Your task to perform on an android device: turn off notifications in google photos Image 0: 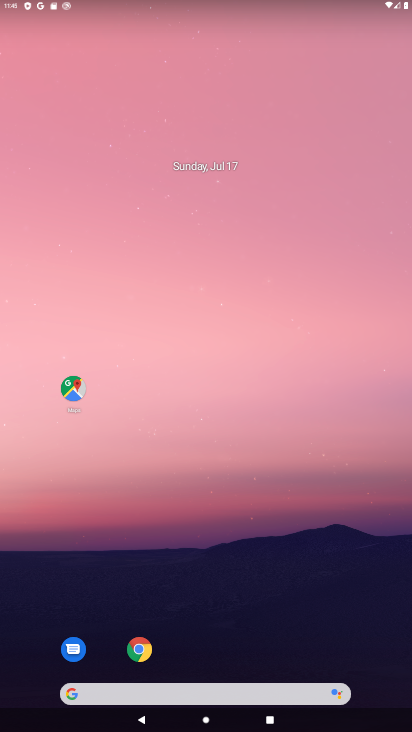
Step 0: drag from (200, 660) to (262, 88)
Your task to perform on an android device: turn off notifications in google photos Image 1: 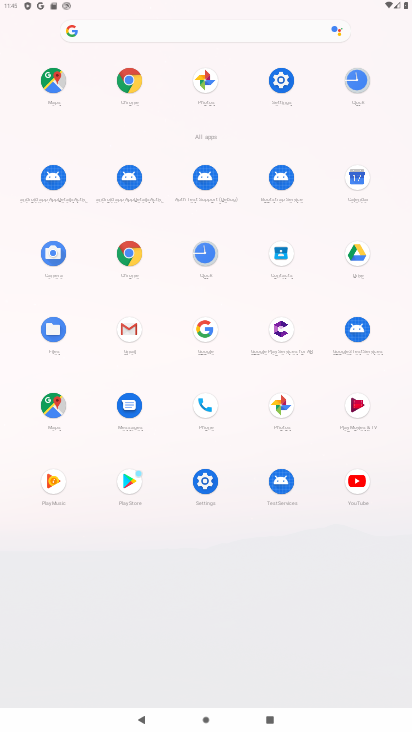
Step 1: click (201, 87)
Your task to perform on an android device: turn off notifications in google photos Image 2: 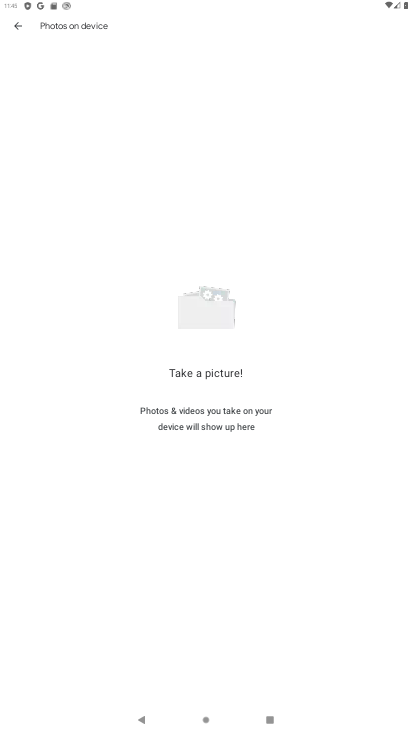
Step 2: click (24, 33)
Your task to perform on an android device: turn off notifications in google photos Image 3: 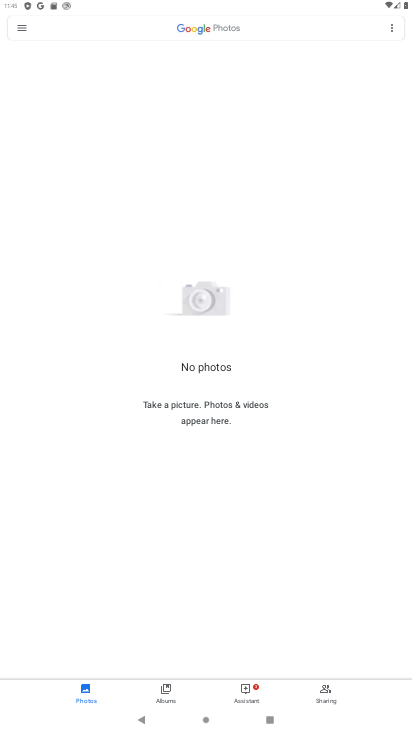
Step 3: click (24, 33)
Your task to perform on an android device: turn off notifications in google photos Image 4: 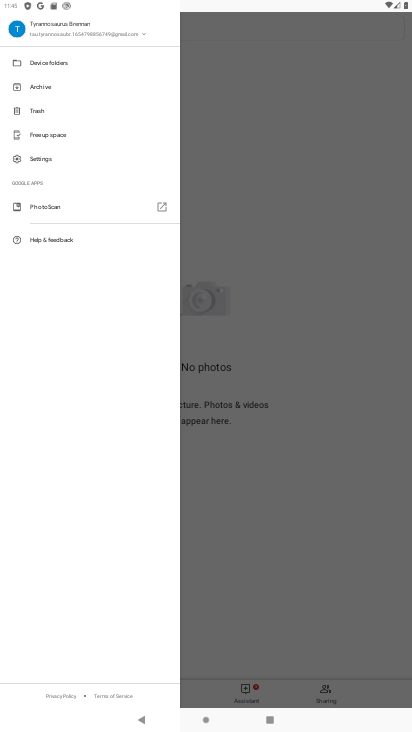
Step 4: click (73, 169)
Your task to perform on an android device: turn off notifications in google photos Image 5: 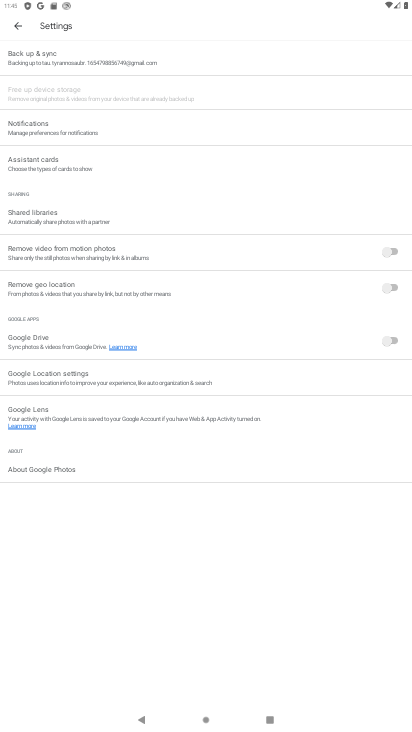
Step 5: click (97, 133)
Your task to perform on an android device: turn off notifications in google photos Image 6: 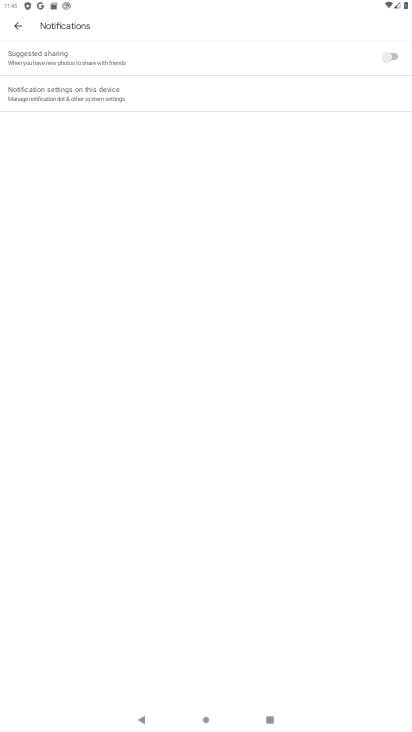
Step 6: task complete